Your task to perform on an android device: install app "Microsoft Authenticator" Image 0: 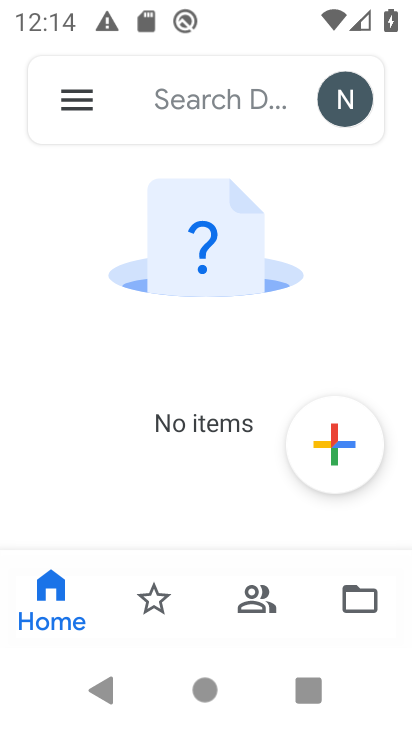
Step 0: press home button
Your task to perform on an android device: install app "Microsoft Authenticator" Image 1: 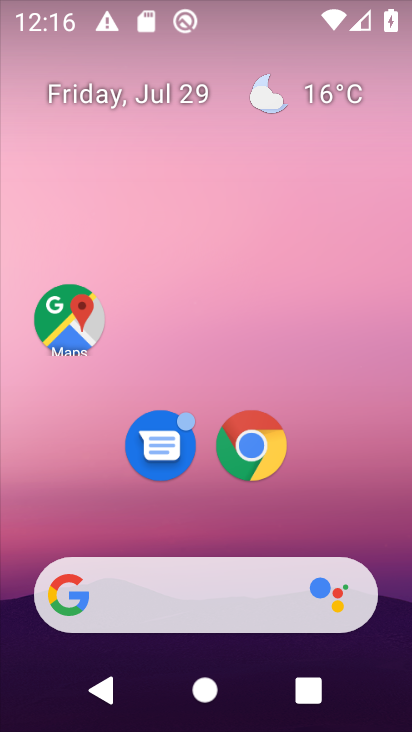
Step 1: drag from (378, 539) to (335, 58)
Your task to perform on an android device: install app "Microsoft Authenticator" Image 2: 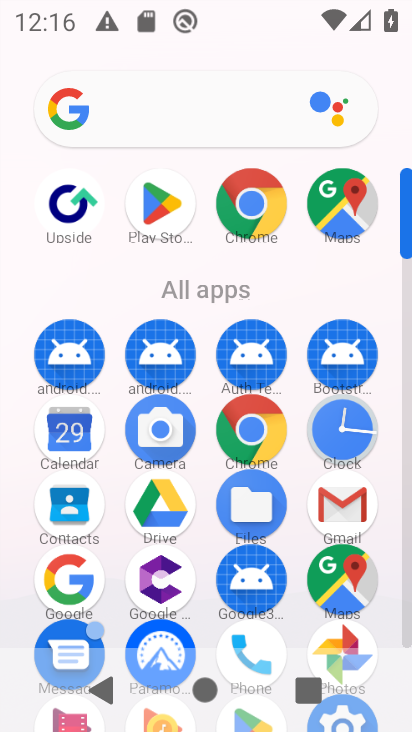
Step 2: click (409, 636)
Your task to perform on an android device: install app "Microsoft Authenticator" Image 3: 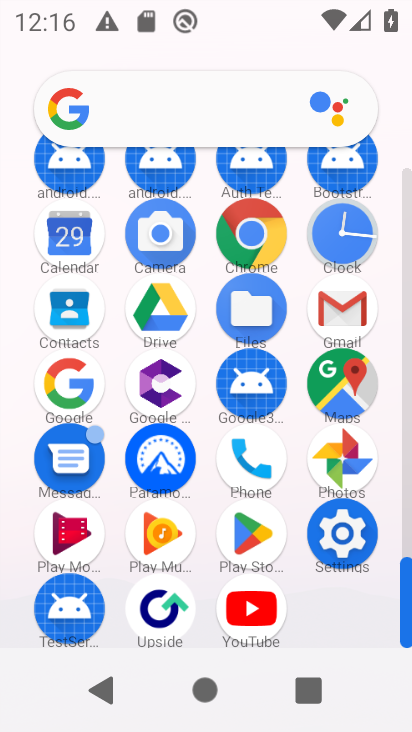
Step 3: click (247, 535)
Your task to perform on an android device: install app "Microsoft Authenticator" Image 4: 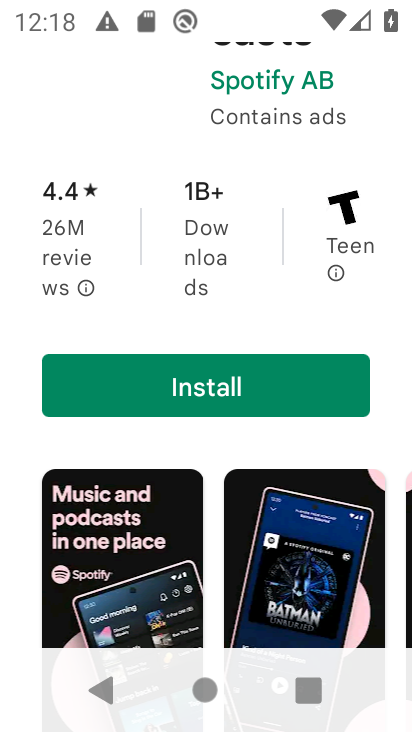
Step 4: click (99, 380)
Your task to perform on an android device: install app "Microsoft Authenticator" Image 5: 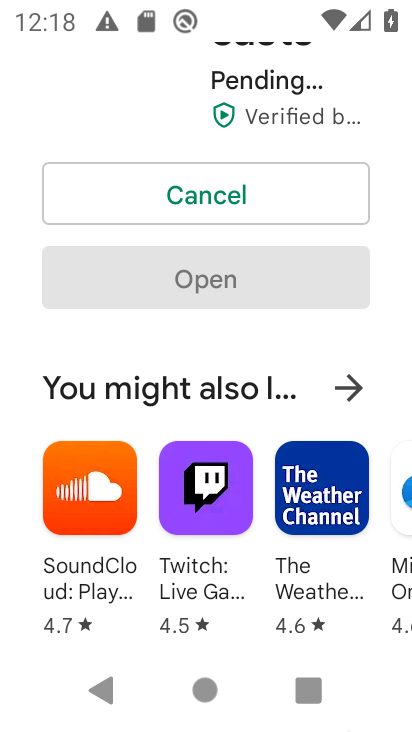
Step 5: drag from (158, 175) to (178, 563)
Your task to perform on an android device: install app "Microsoft Authenticator" Image 6: 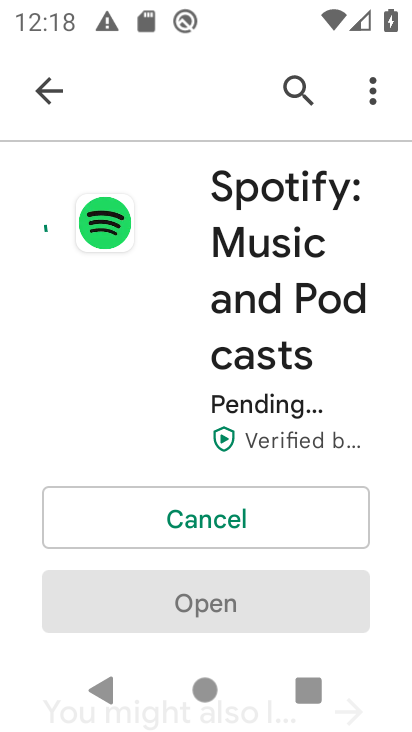
Step 6: click (160, 514)
Your task to perform on an android device: install app "Microsoft Authenticator" Image 7: 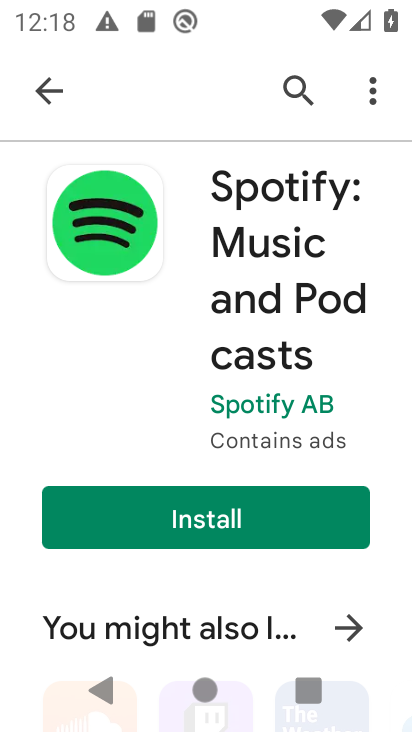
Step 7: click (286, 90)
Your task to perform on an android device: install app "Microsoft Authenticator" Image 8: 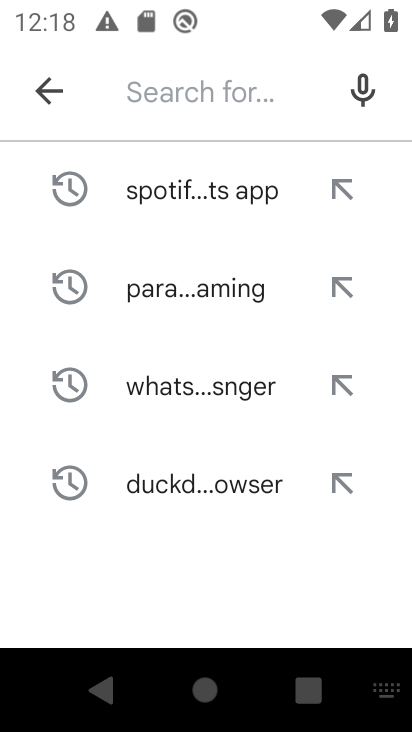
Step 8: type "Microsoft Authenticator""
Your task to perform on an android device: install app "Microsoft Authenticator" Image 9: 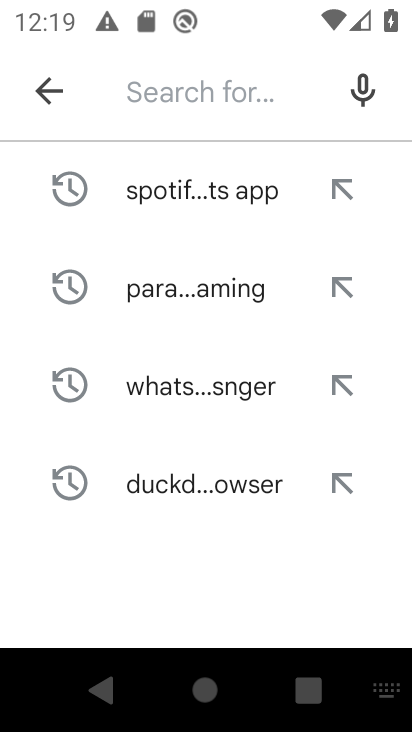
Step 9: type "Microsoft Authenticator"
Your task to perform on an android device: install app "Microsoft Authenticator" Image 10: 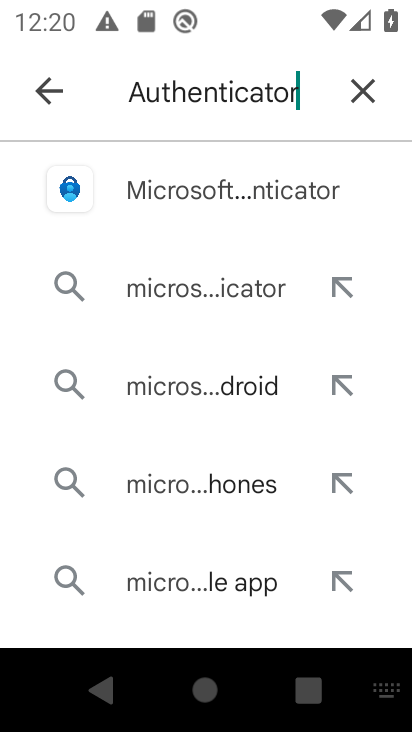
Step 10: click (66, 194)
Your task to perform on an android device: install app "Microsoft Authenticator" Image 11: 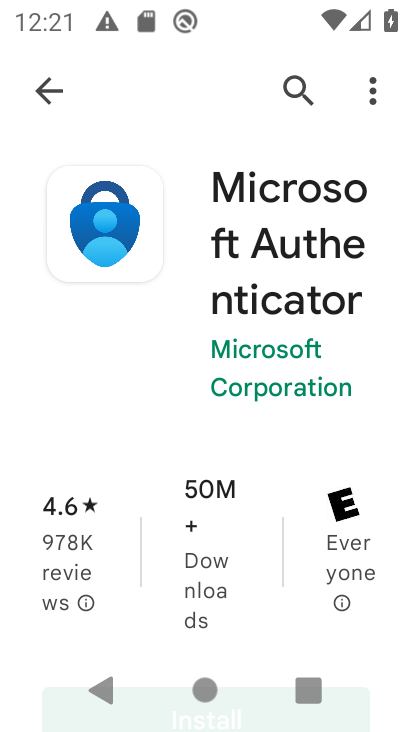
Step 11: drag from (224, 620) to (214, 158)
Your task to perform on an android device: install app "Microsoft Authenticator" Image 12: 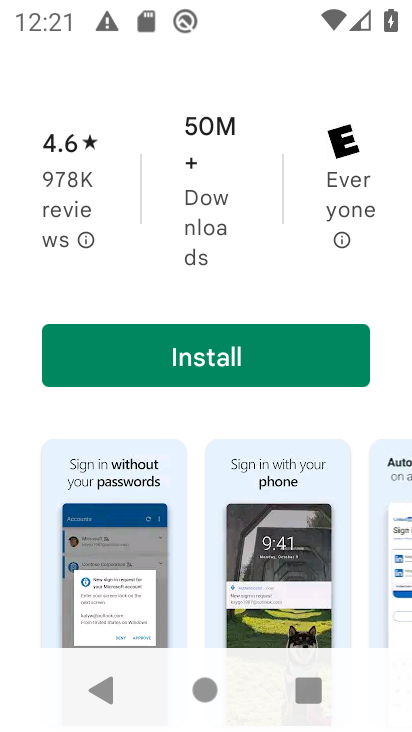
Step 12: click (150, 362)
Your task to perform on an android device: install app "Microsoft Authenticator" Image 13: 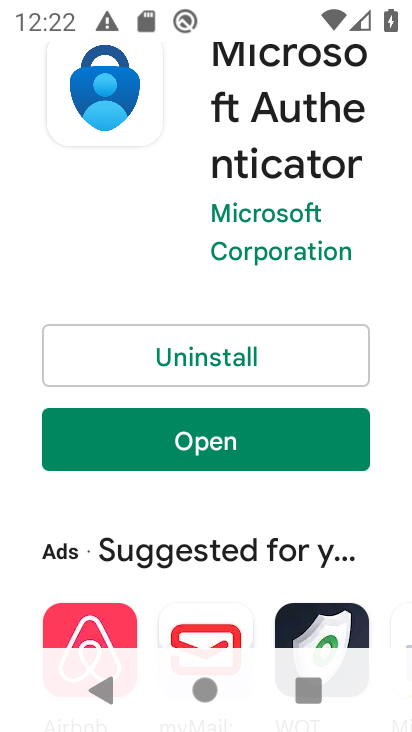
Step 13: task complete